Your task to perform on an android device: Open Yahoo.com Image 0: 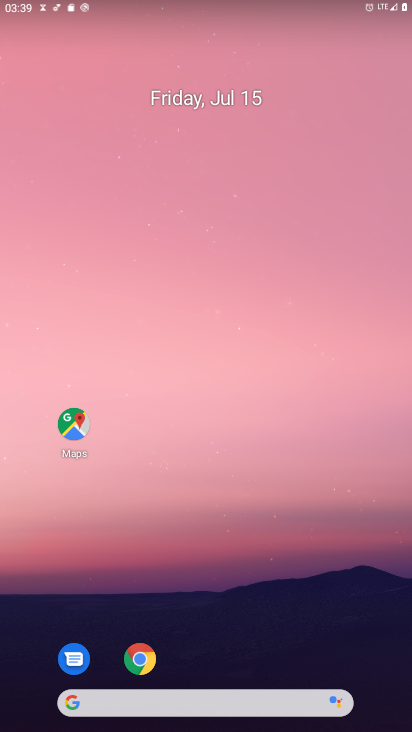
Step 0: click (144, 656)
Your task to perform on an android device: Open Yahoo.com Image 1: 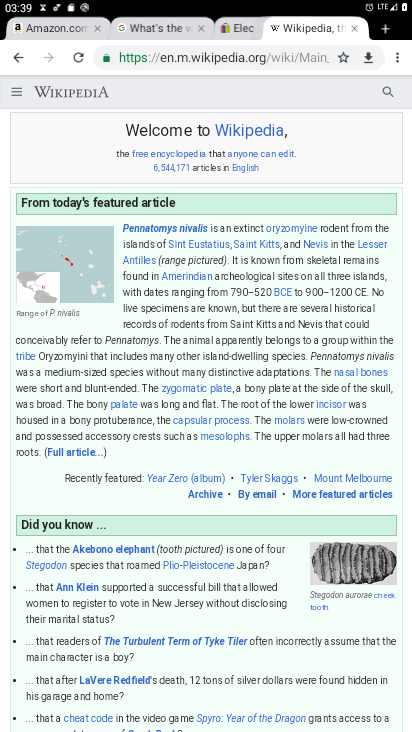
Step 1: click (393, 30)
Your task to perform on an android device: Open Yahoo.com Image 2: 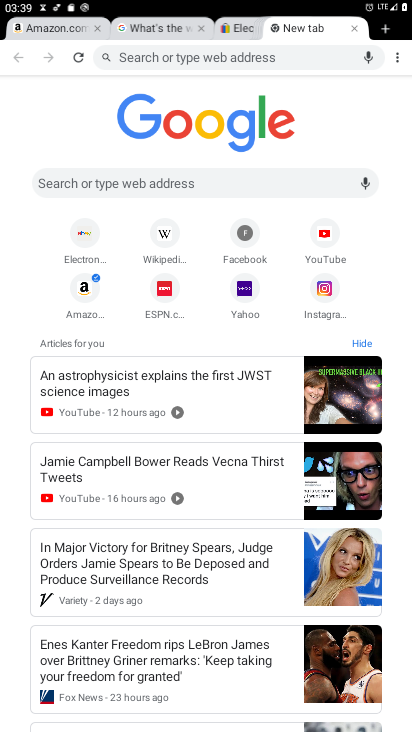
Step 2: click (245, 292)
Your task to perform on an android device: Open Yahoo.com Image 3: 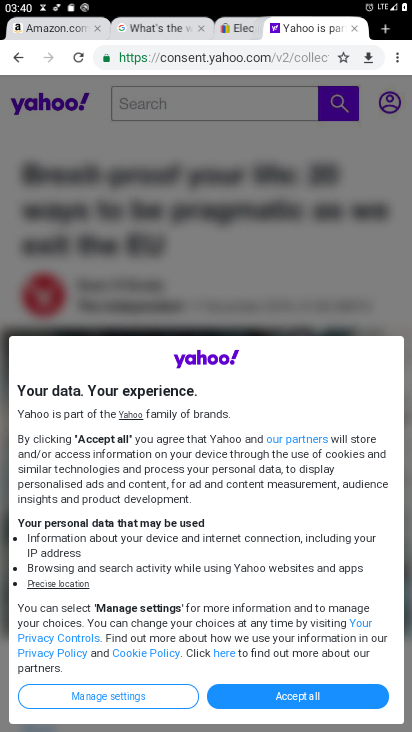
Step 3: task complete